Your task to perform on an android device: turn off location history Image 0: 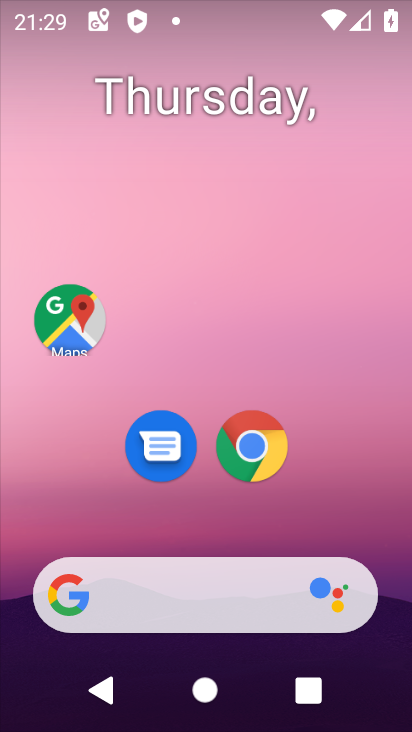
Step 0: drag from (334, 465) to (328, 120)
Your task to perform on an android device: turn off location history Image 1: 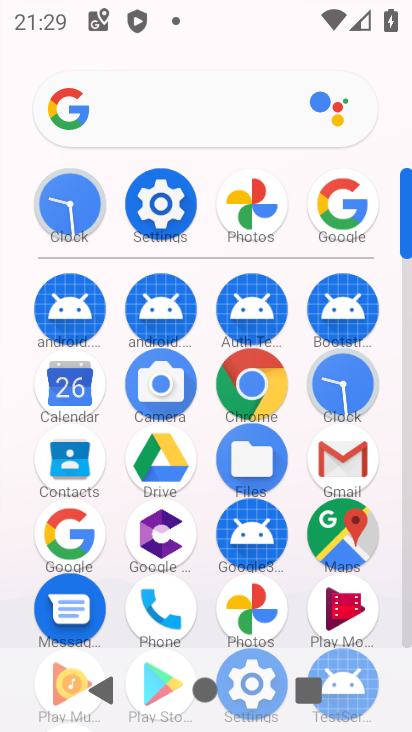
Step 1: click (408, 625)
Your task to perform on an android device: turn off location history Image 2: 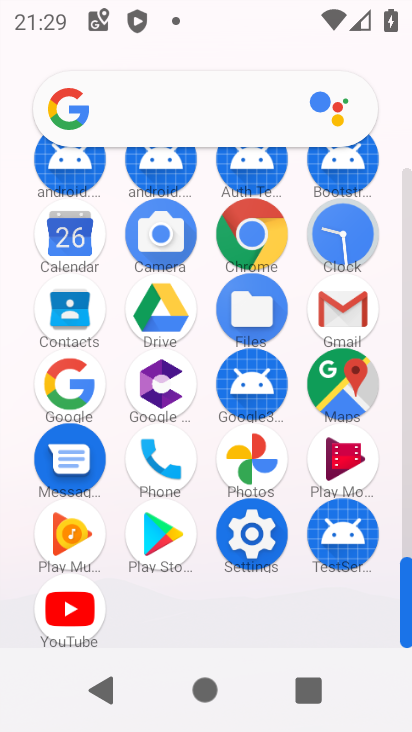
Step 2: click (345, 392)
Your task to perform on an android device: turn off location history Image 3: 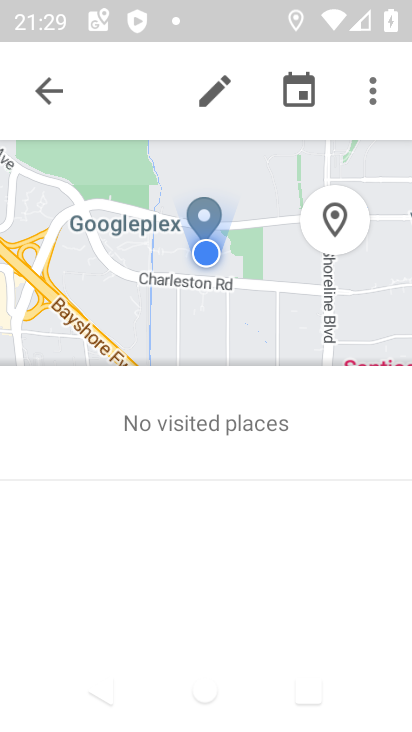
Step 3: click (38, 94)
Your task to perform on an android device: turn off location history Image 4: 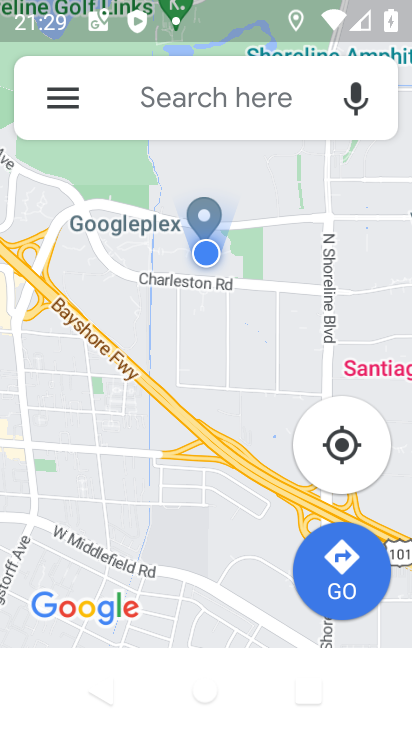
Step 4: click (38, 89)
Your task to perform on an android device: turn off location history Image 5: 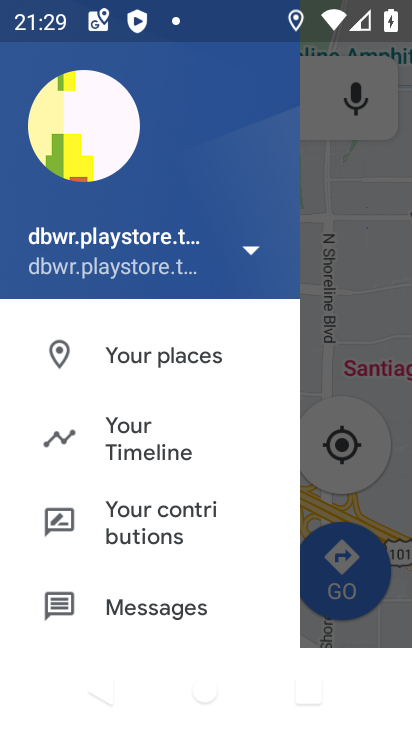
Step 5: click (78, 424)
Your task to perform on an android device: turn off location history Image 6: 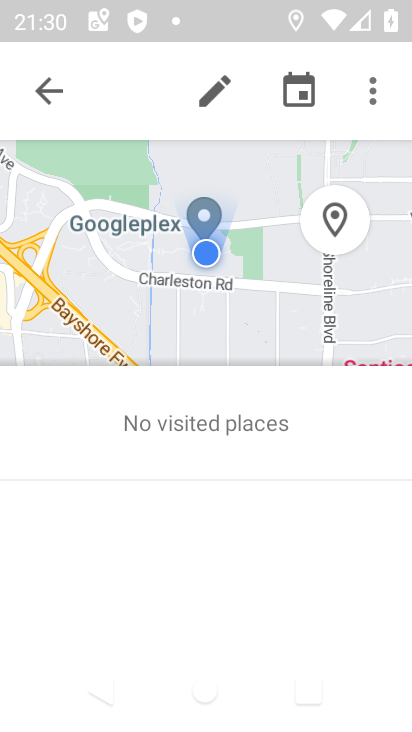
Step 6: click (391, 9)
Your task to perform on an android device: turn off location history Image 7: 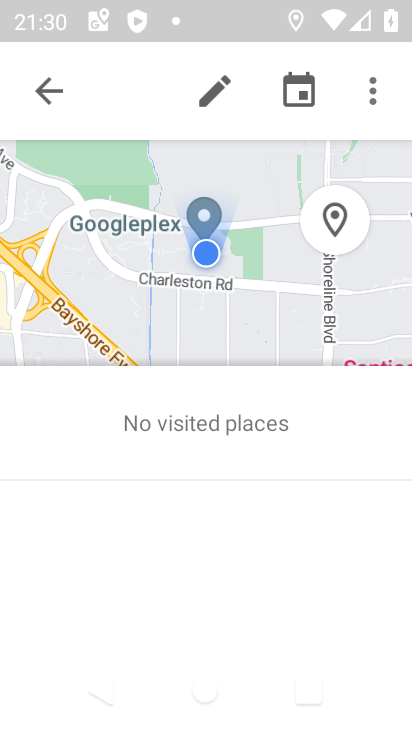
Step 7: drag from (389, 15) to (201, 592)
Your task to perform on an android device: turn off location history Image 8: 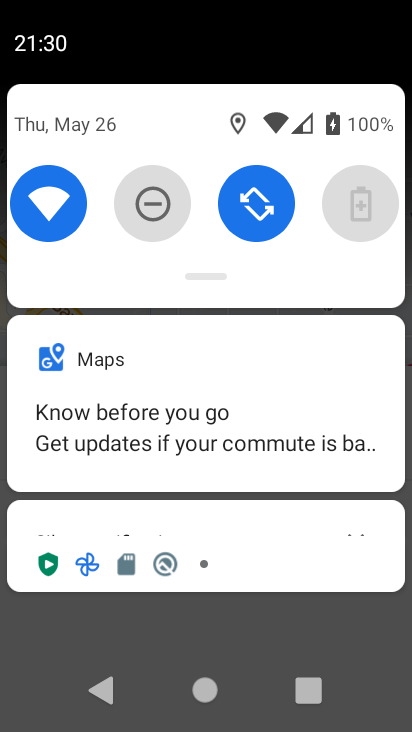
Step 8: drag from (201, 592) to (274, 224)
Your task to perform on an android device: turn off location history Image 9: 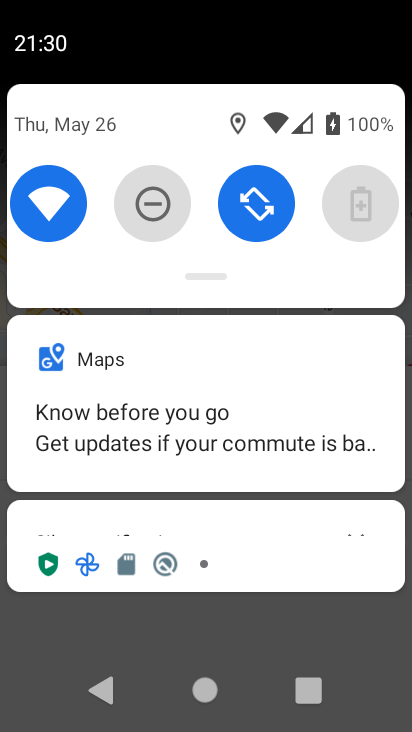
Step 9: drag from (318, 621) to (326, 393)
Your task to perform on an android device: turn off location history Image 10: 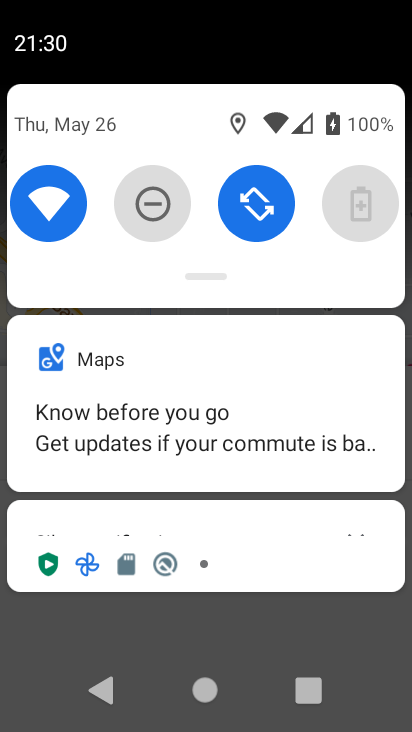
Step 10: drag from (378, 624) to (378, 4)
Your task to perform on an android device: turn off location history Image 11: 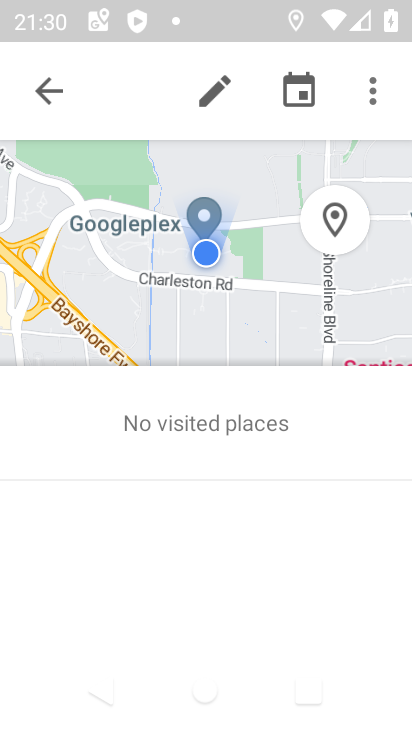
Step 11: click (373, 89)
Your task to perform on an android device: turn off location history Image 12: 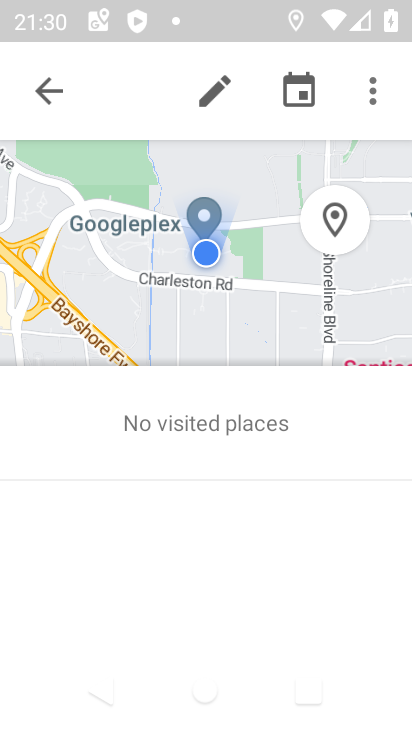
Step 12: click (373, 89)
Your task to perform on an android device: turn off location history Image 13: 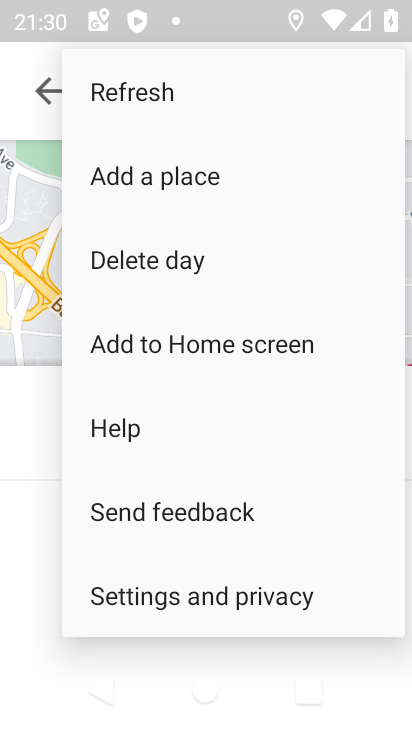
Step 13: click (268, 579)
Your task to perform on an android device: turn off location history Image 14: 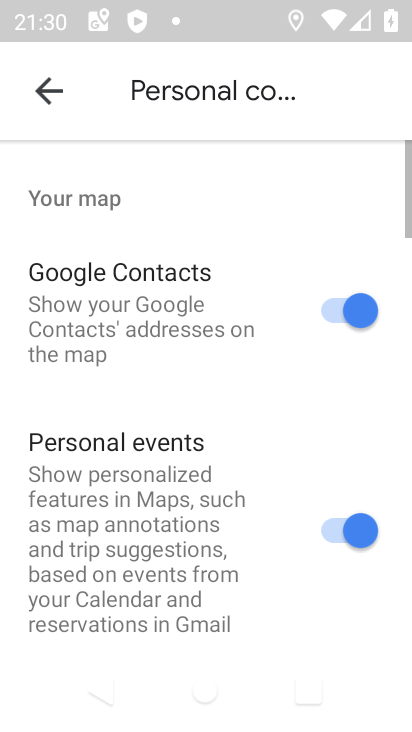
Step 14: drag from (268, 579) to (269, 283)
Your task to perform on an android device: turn off location history Image 15: 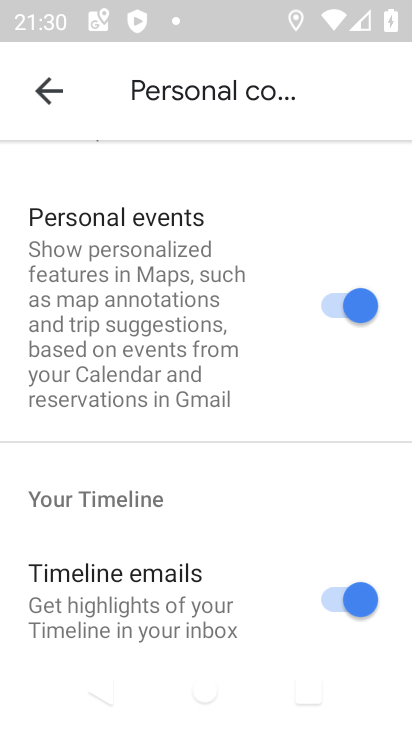
Step 15: drag from (273, 585) to (246, 134)
Your task to perform on an android device: turn off location history Image 16: 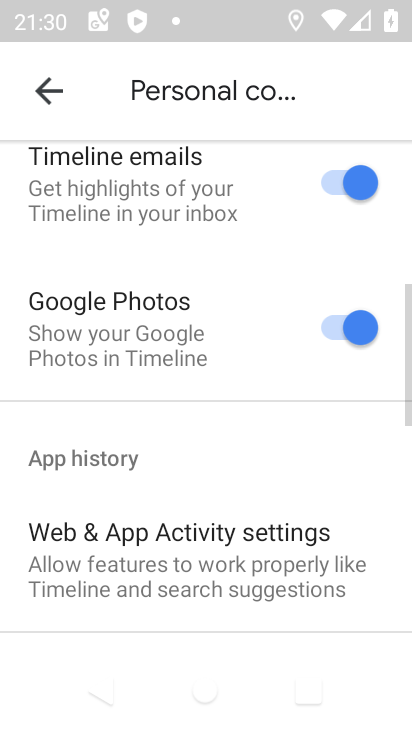
Step 16: drag from (157, 556) to (186, 274)
Your task to perform on an android device: turn off location history Image 17: 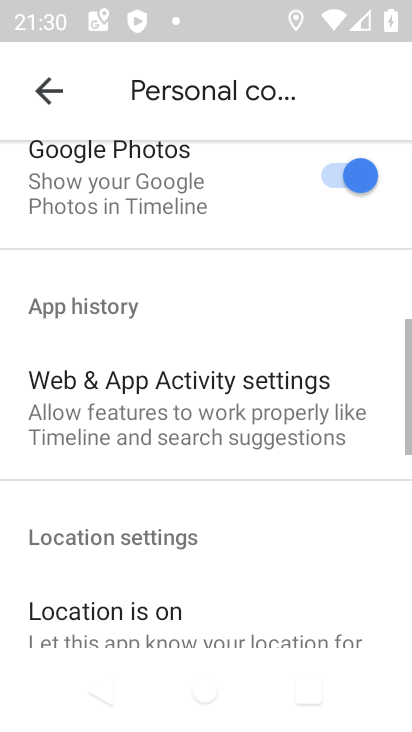
Step 17: drag from (187, 585) to (243, 186)
Your task to perform on an android device: turn off location history Image 18: 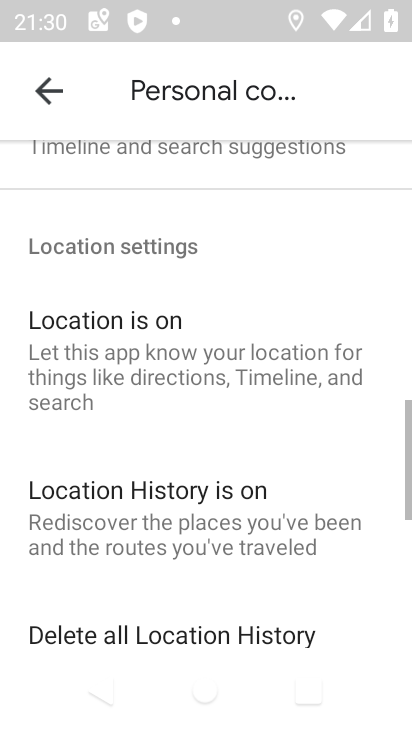
Step 18: drag from (193, 554) to (221, 343)
Your task to perform on an android device: turn off location history Image 19: 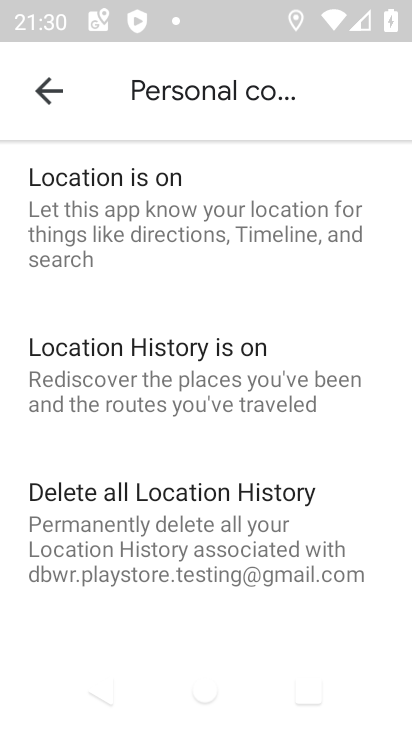
Step 19: click (182, 407)
Your task to perform on an android device: turn off location history Image 20: 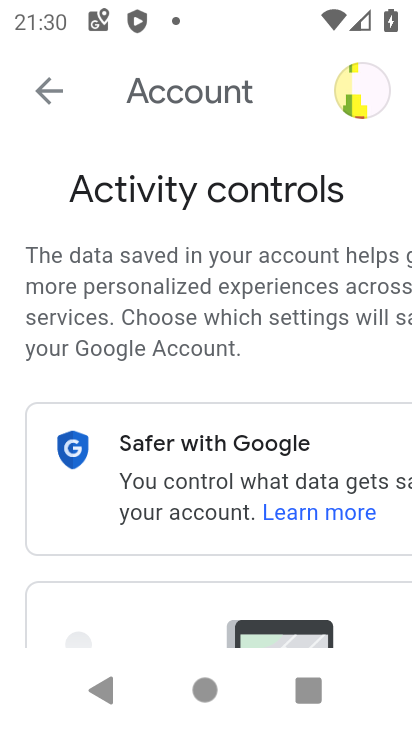
Step 20: drag from (307, 551) to (184, 158)
Your task to perform on an android device: turn off location history Image 21: 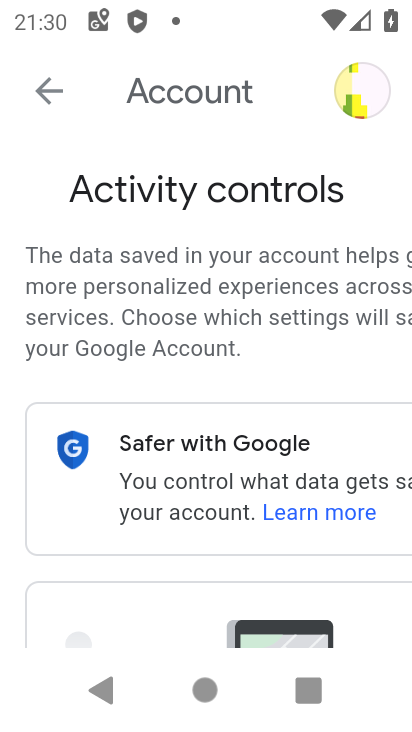
Step 21: drag from (331, 612) to (153, 201)
Your task to perform on an android device: turn off location history Image 22: 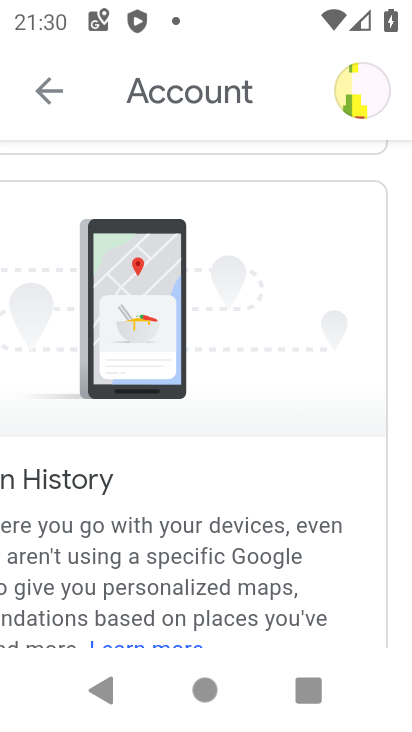
Step 22: drag from (338, 581) to (336, 378)
Your task to perform on an android device: turn off location history Image 23: 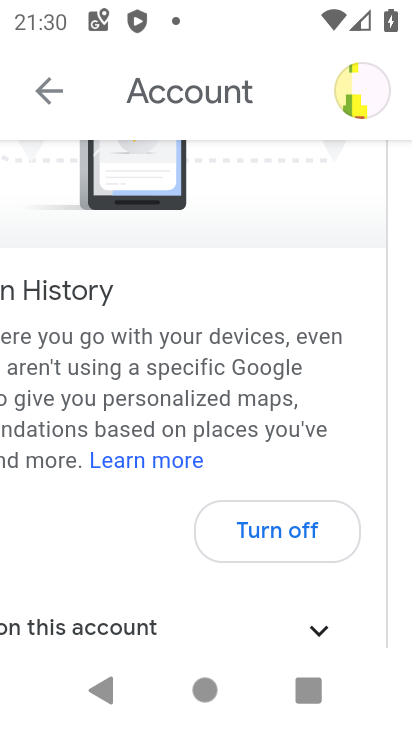
Step 23: click (320, 522)
Your task to perform on an android device: turn off location history Image 24: 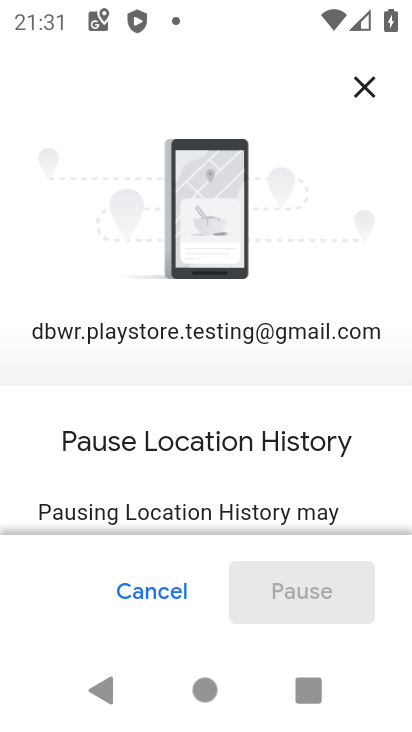
Step 24: drag from (320, 522) to (305, 7)
Your task to perform on an android device: turn off location history Image 25: 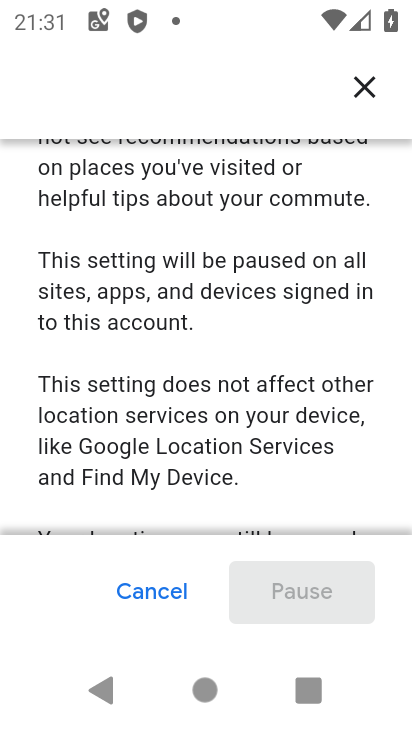
Step 25: drag from (231, 438) to (334, 23)
Your task to perform on an android device: turn off location history Image 26: 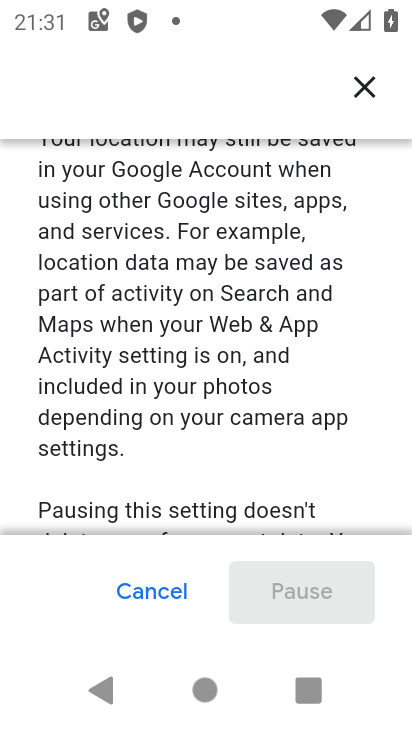
Step 26: drag from (297, 491) to (300, 2)
Your task to perform on an android device: turn off location history Image 27: 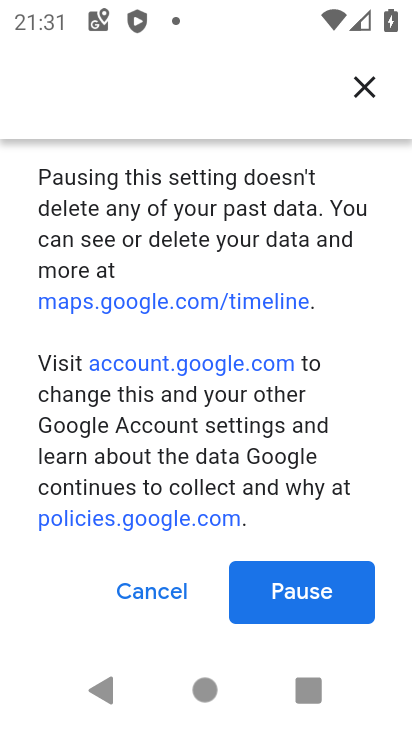
Step 27: drag from (307, 423) to (326, 186)
Your task to perform on an android device: turn off location history Image 28: 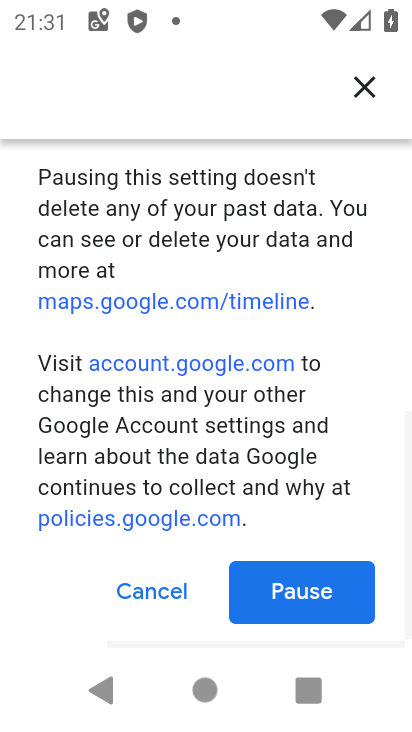
Step 28: click (318, 595)
Your task to perform on an android device: turn off location history Image 29: 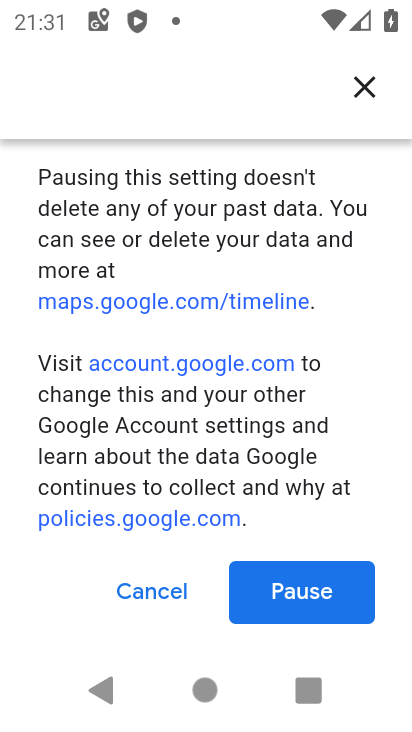
Step 29: click (318, 595)
Your task to perform on an android device: turn off location history Image 30: 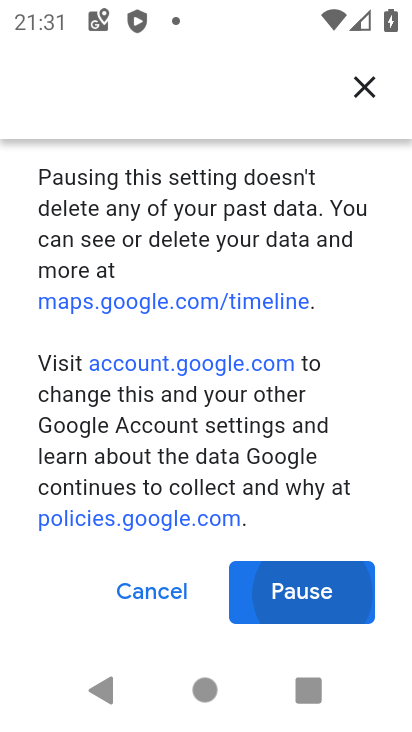
Step 30: click (318, 595)
Your task to perform on an android device: turn off location history Image 31: 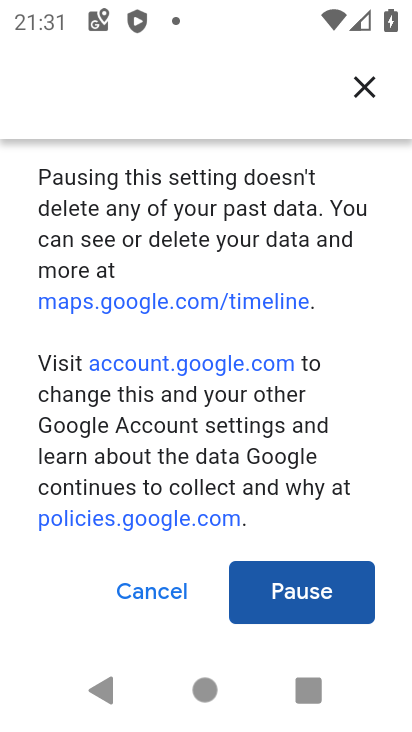
Step 31: click (318, 595)
Your task to perform on an android device: turn off location history Image 32: 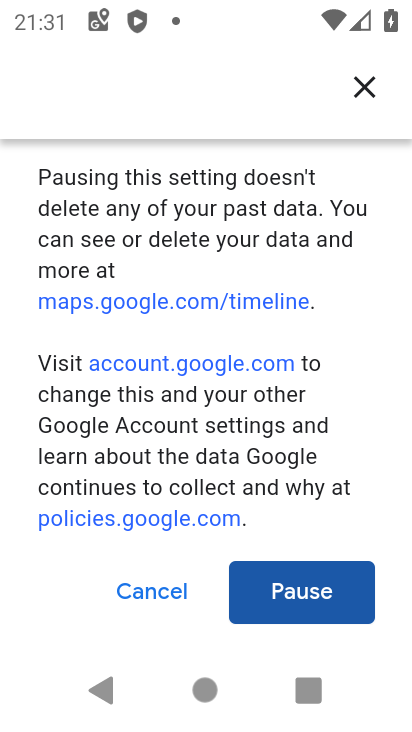
Step 32: click (318, 595)
Your task to perform on an android device: turn off location history Image 33: 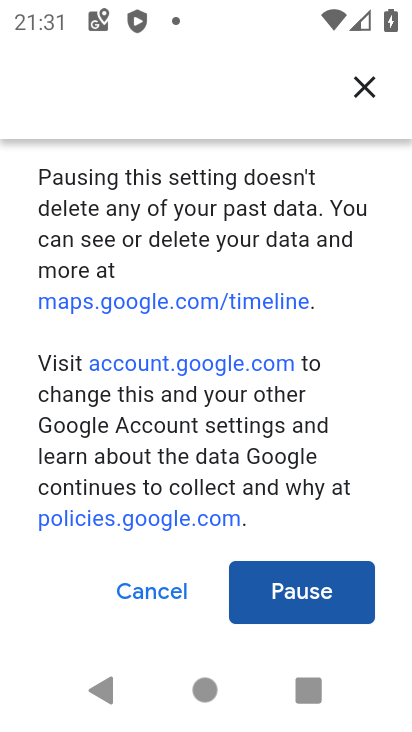
Step 33: click (318, 595)
Your task to perform on an android device: turn off location history Image 34: 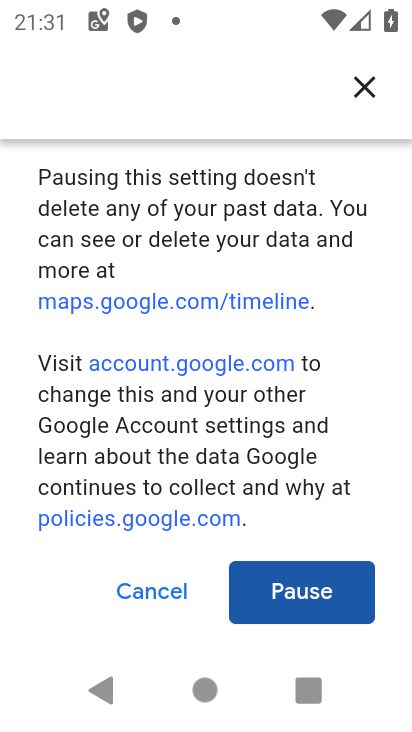
Step 34: click (318, 595)
Your task to perform on an android device: turn off location history Image 35: 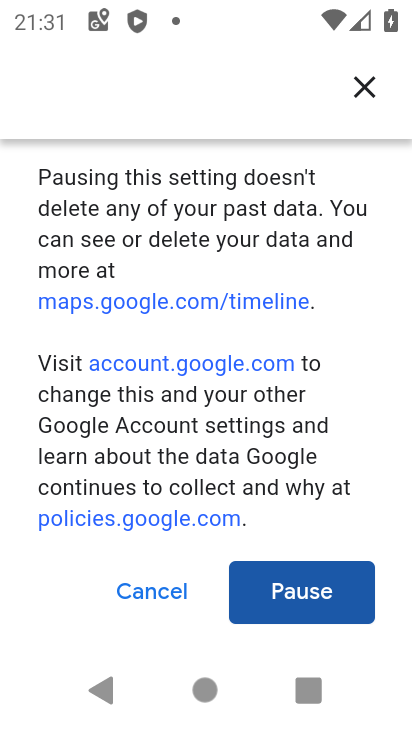
Step 35: click (318, 595)
Your task to perform on an android device: turn off location history Image 36: 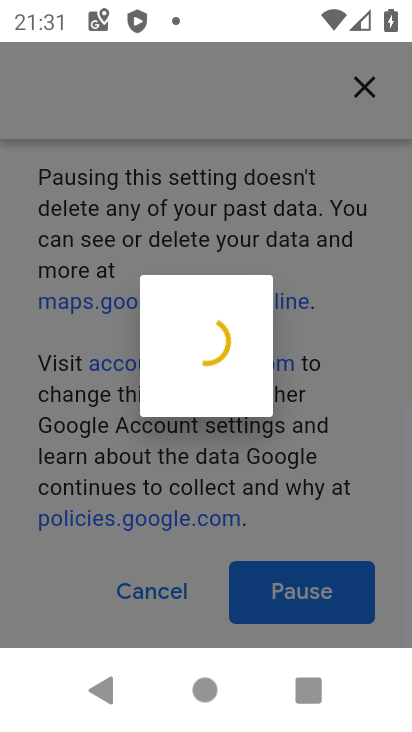
Step 36: click (318, 595)
Your task to perform on an android device: turn off location history Image 37: 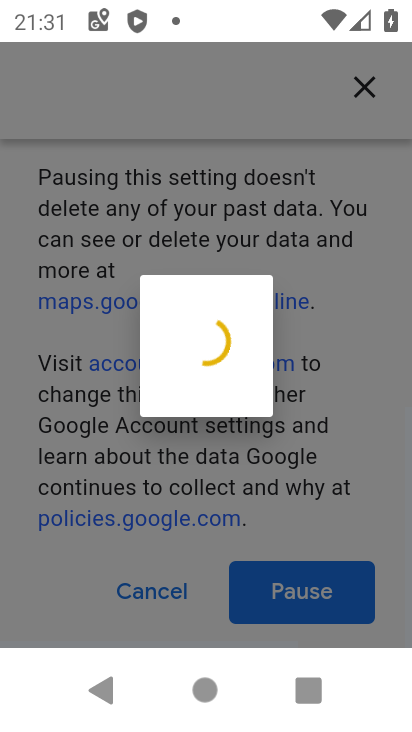
Step 37: click (318, 595)
Your task to perform on an android device: turn off location history Image 38: 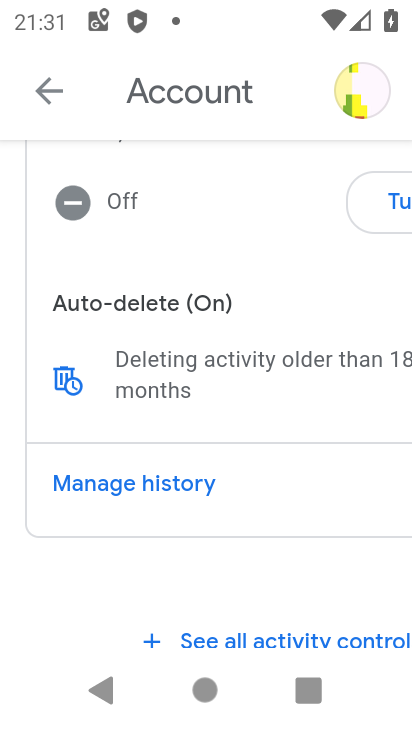
Step 38: task complete